Your task to perform on an android device: set default search engine in the chrome app Image 0: 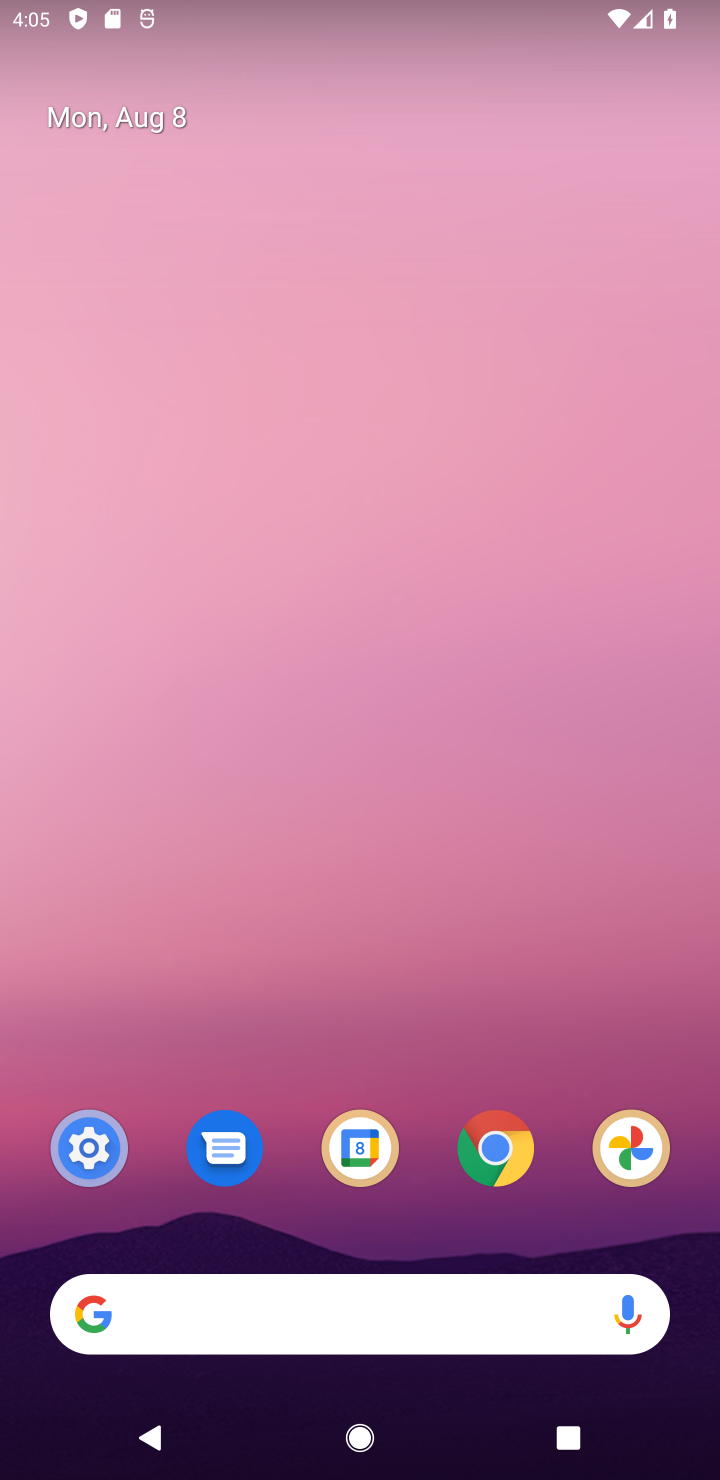
Step 0: drag from (114, 532) to (350, 3)
Your task to perform on an android device: set default search engine in the chrome app Image 1: 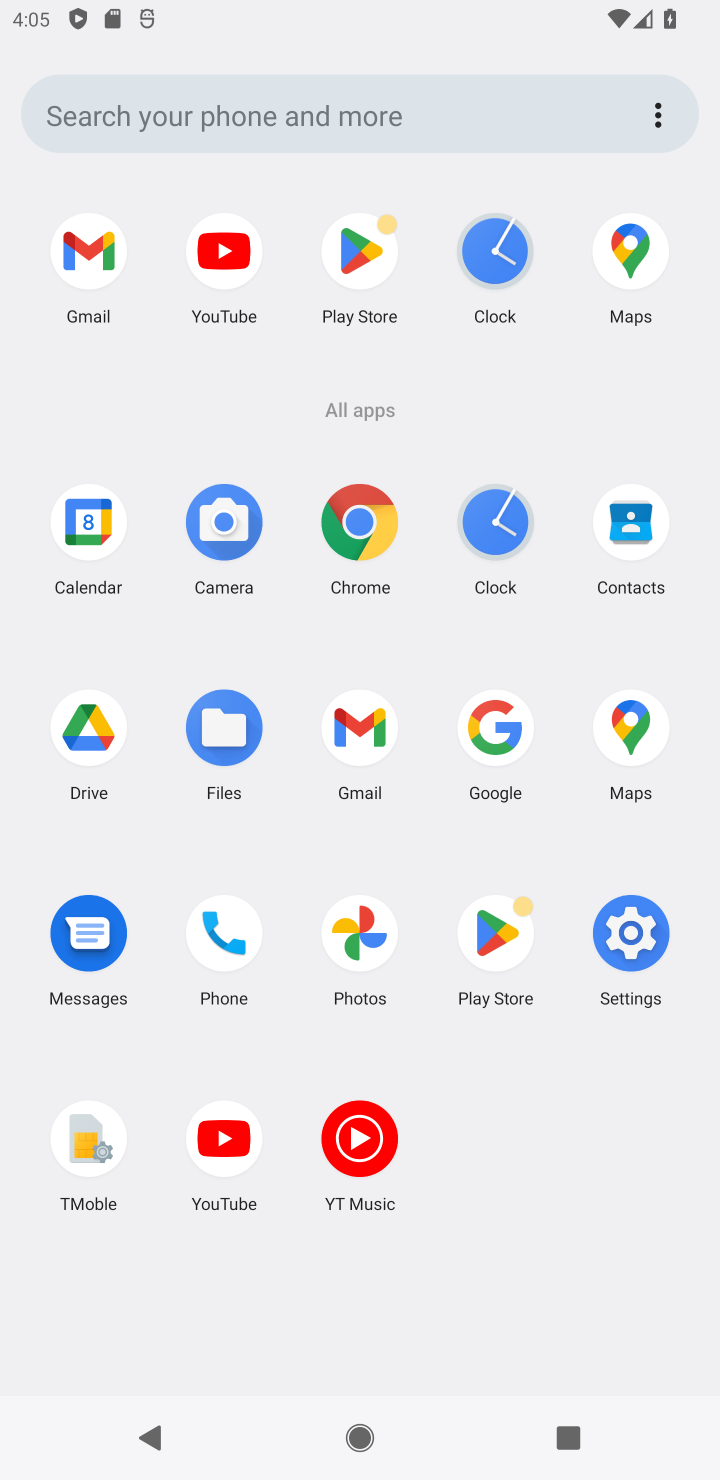
Step 1: click (335, 546)
Your task to perform on an android device: set default search engine in the chrome app Image 2: 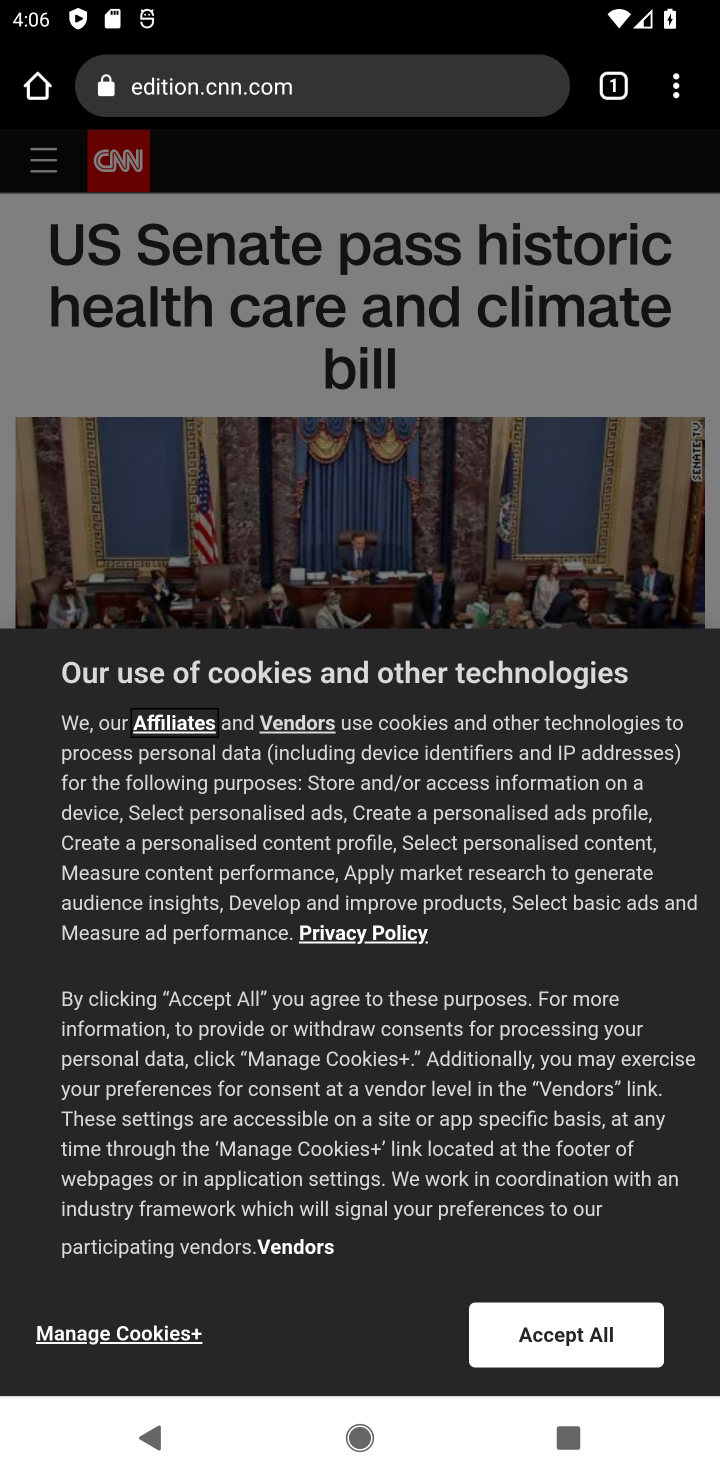
Step 2: drag from (680, 93) to (471, 1031)
Your task to perform on an android device: set default search engine in the chrome app Image 3: 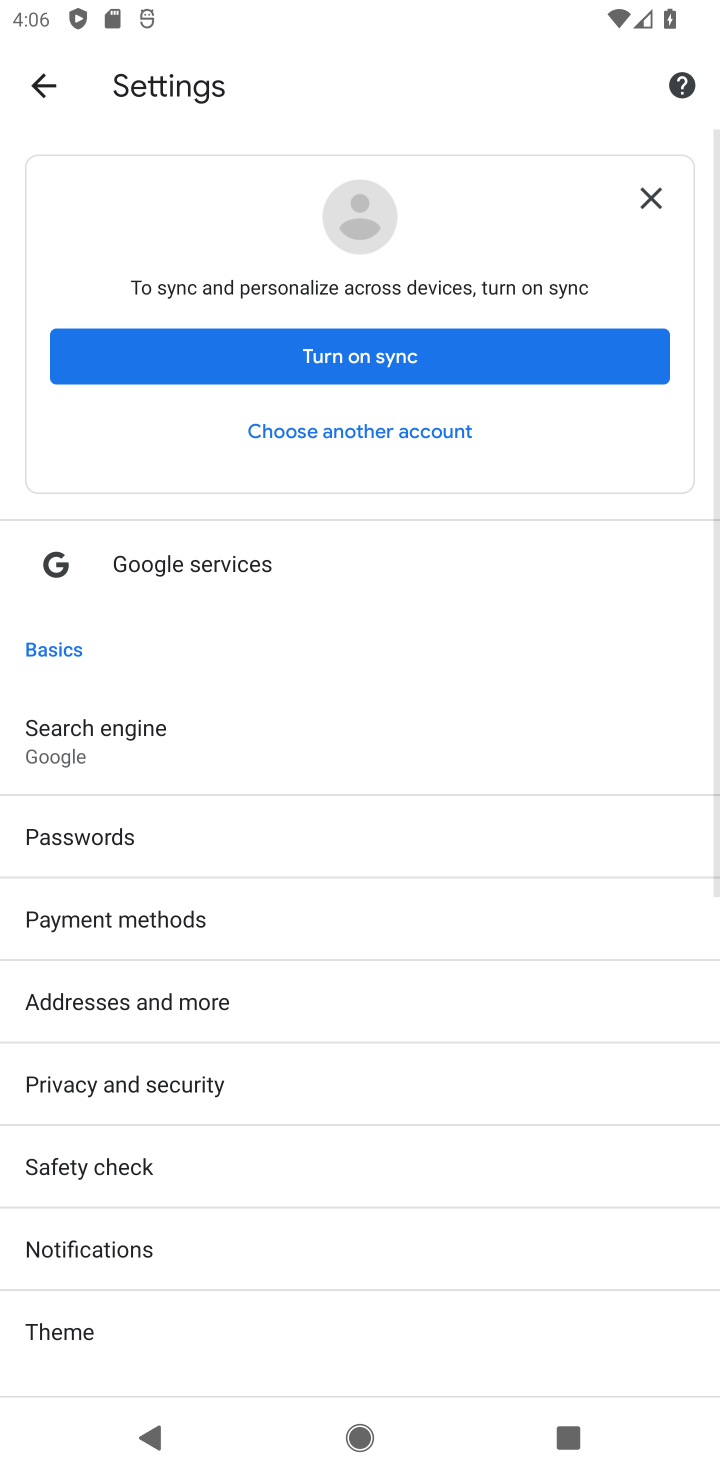
Step 3: click (115, 756)
Your task to perform on an android device: set default search engine in the chrome app Image 4: 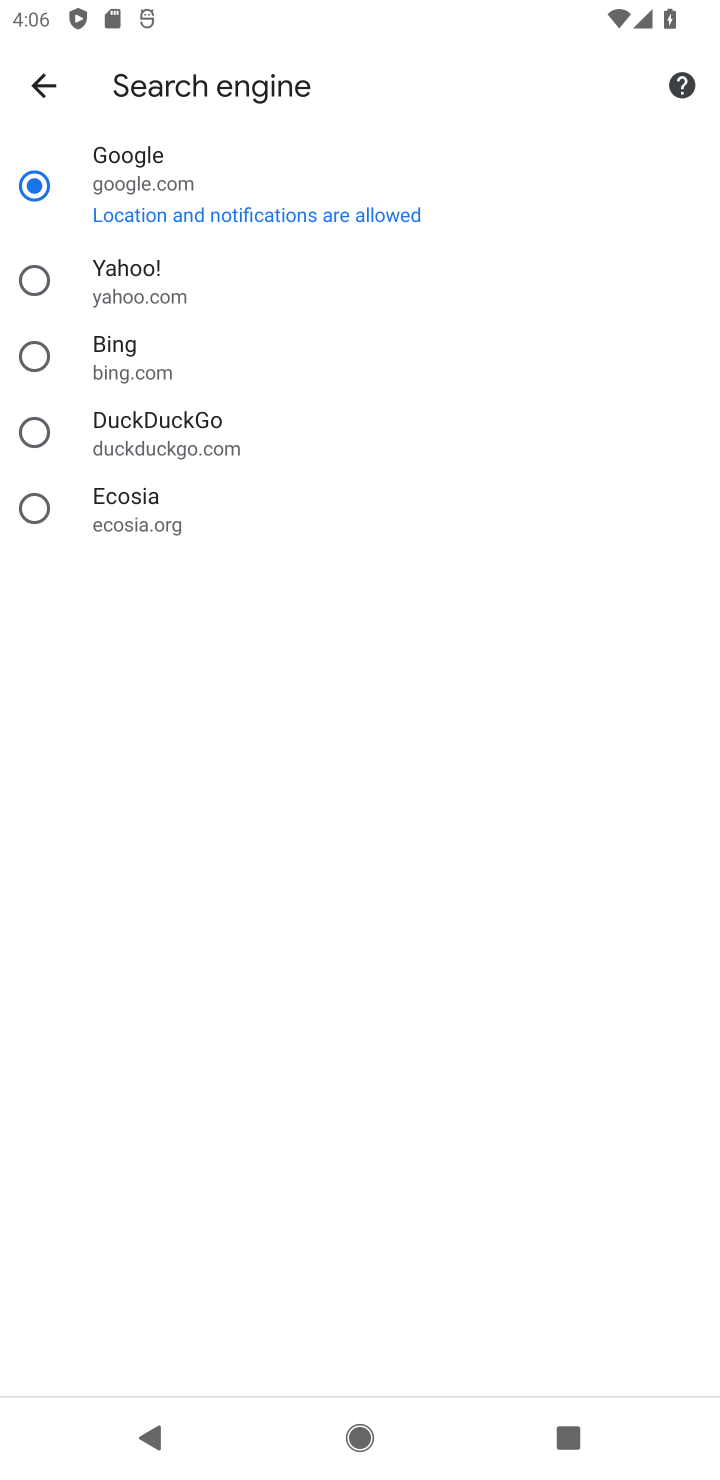
Step 4: task complete